Your task to perform on an android device: Clear the cart on walmart.com. Search for "bose soundlink mini" on walmart.com, select the first entry, add it to the cart, then select checkout. Image 0: 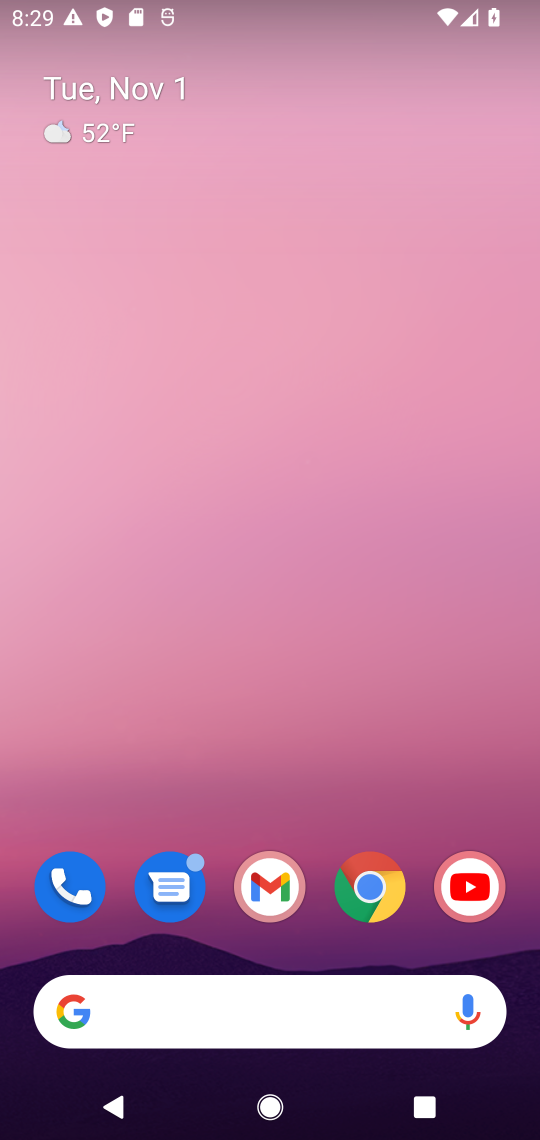
Step 0: drag from (200, 625) to (208, 255)
Your task to perform on an android device: Clear the cart on walmart.com. Search for "bose soundlink mini" on walmart.com, select the first entry, add it to the cart, then select checkout. Image 1: 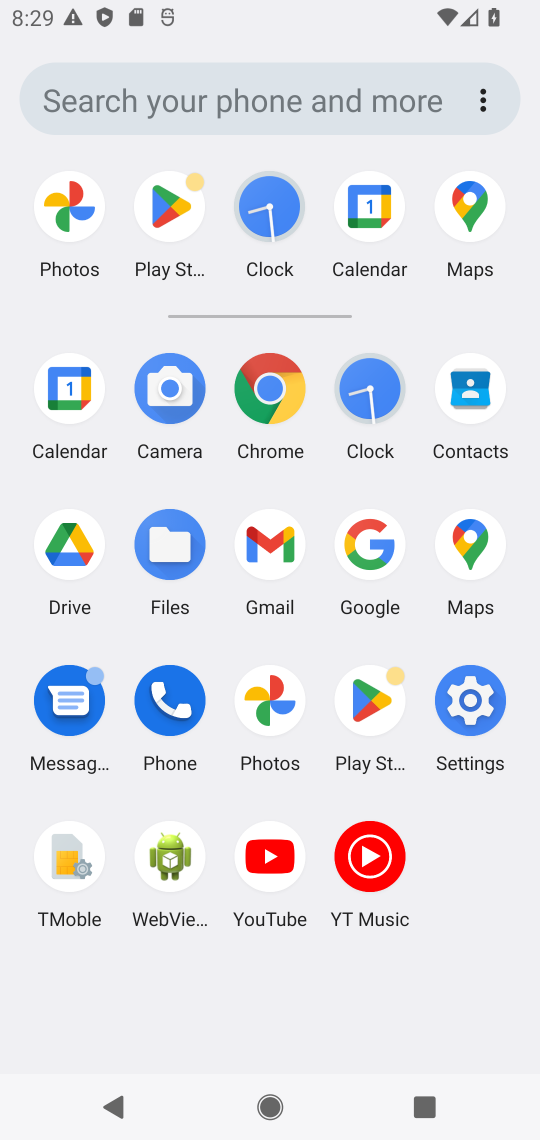
Step 1: click (368, 532)
Your task to perform on an android device: Clear the cart on walmart.com. Search for "bose soundlink mini" on walmart.com, select the first entry, add it to the cart, then select checkout. Image 2: 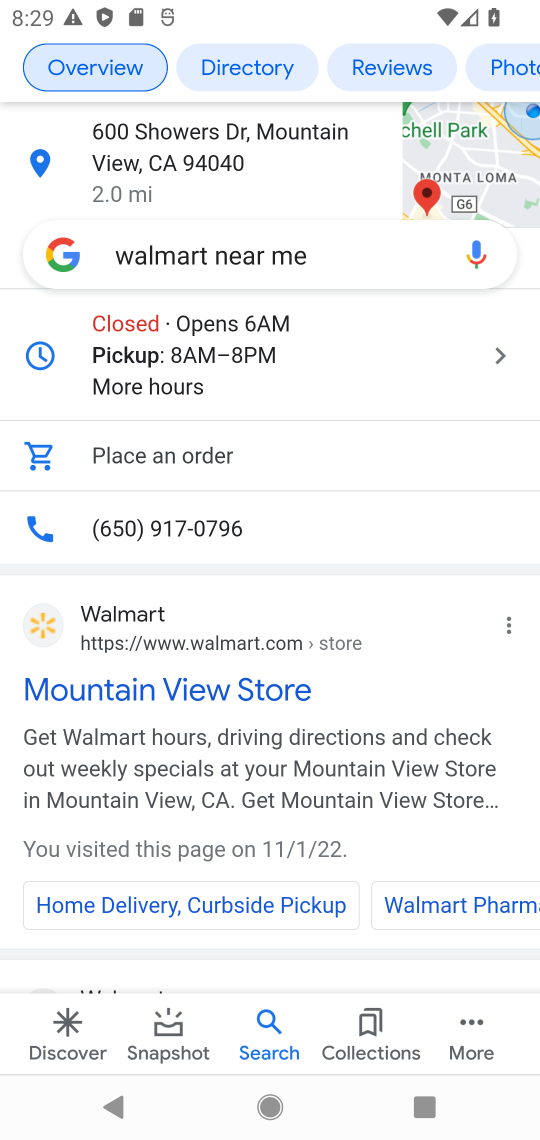
Step 2: click (246, 256)
Your task to perform on an android device: Clear the cart on walmart.com. Search for "bose soundlink mini" on walmart.com, select the first entry, add it to the cart, then select checkout. Image 3: 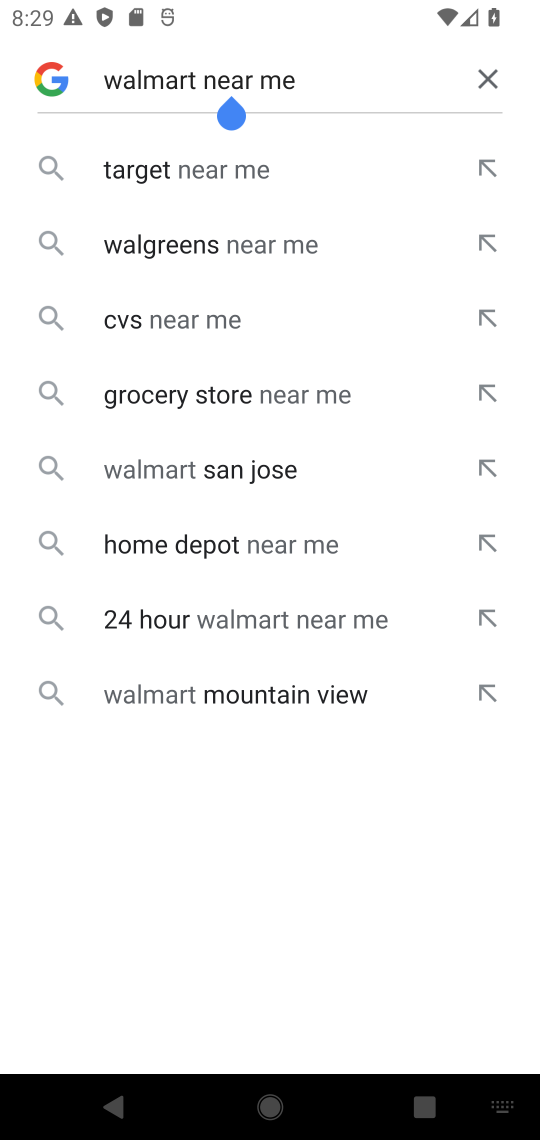
Step 3: click (479, 75)
Your task to perform on an android device: Clear the cart on walmart.com. Search for "bose soundlink mini" on walmart.com, select the first entry, add it to the cart, then select checkout. Image 4: 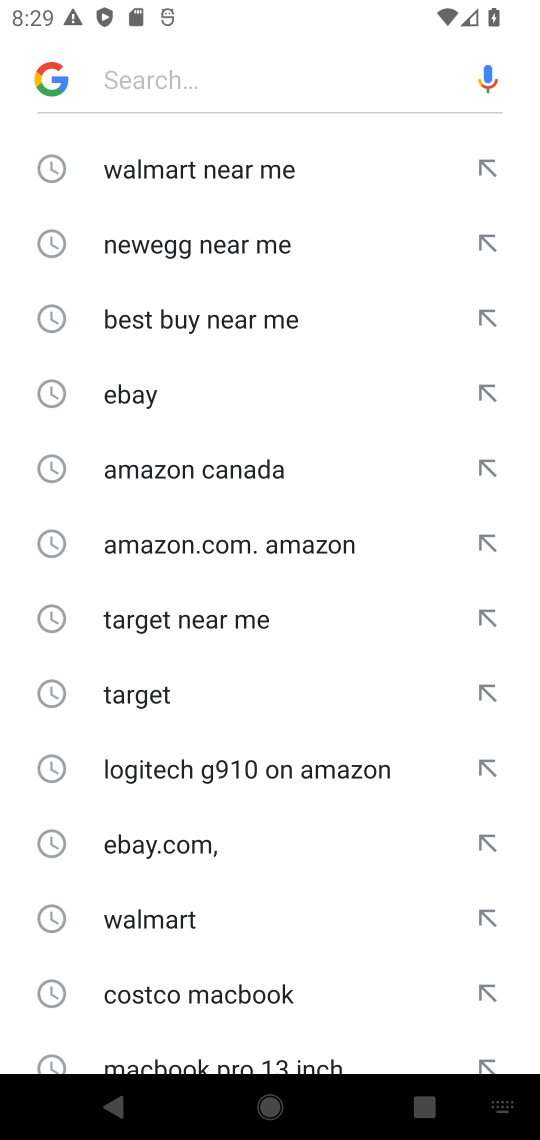
Step 4: click (221, 172)
Your task to perform on an android device: Clear the cart on walmart.com. Search for "bose soundlink mini" on walmart.com, select the first entry, add it to the cart, then select checkout. Image 5: 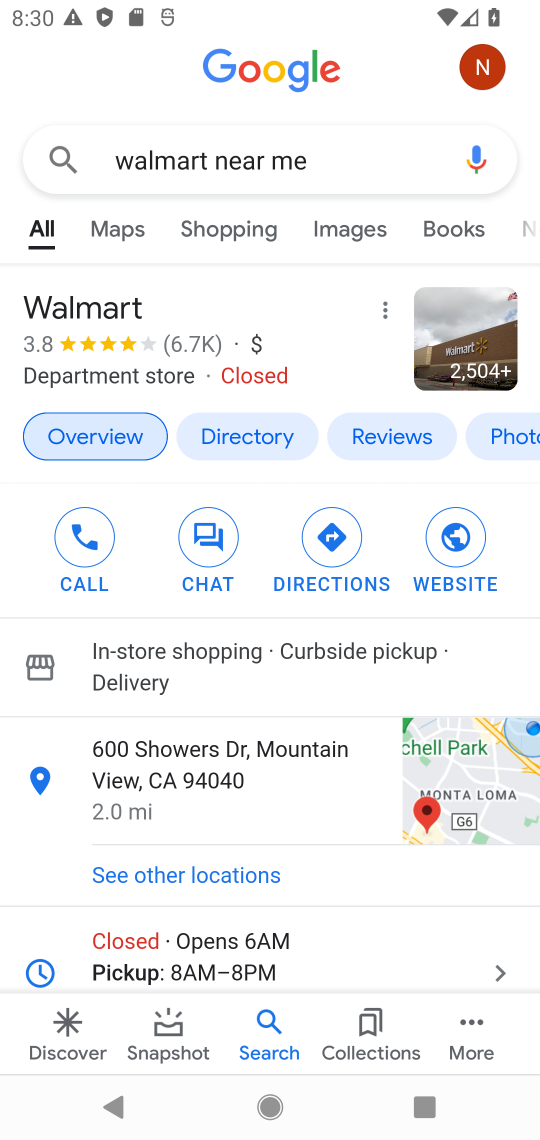
Step 5: drag from (81, 783) to (228, 198)
Your task to perform on an android device: Clear the cart on walmart.com. Search for "bose soundlink mini" on walmart.com, select the first entry, add it to the cart, then select checkout. Image 6: 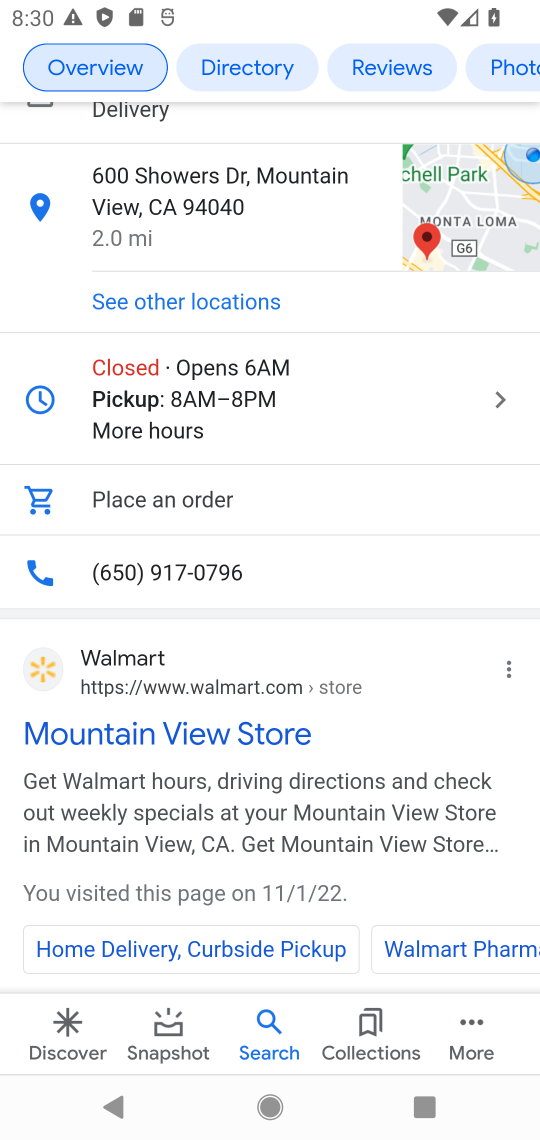
Step 6: click (43, 671)
Your task to perform on an android device: Clear the cart on walmart.com. Search for "bose soundlink mini" on walmart.com, select the first entry, add it to the cart, then select checkout. Image 7: 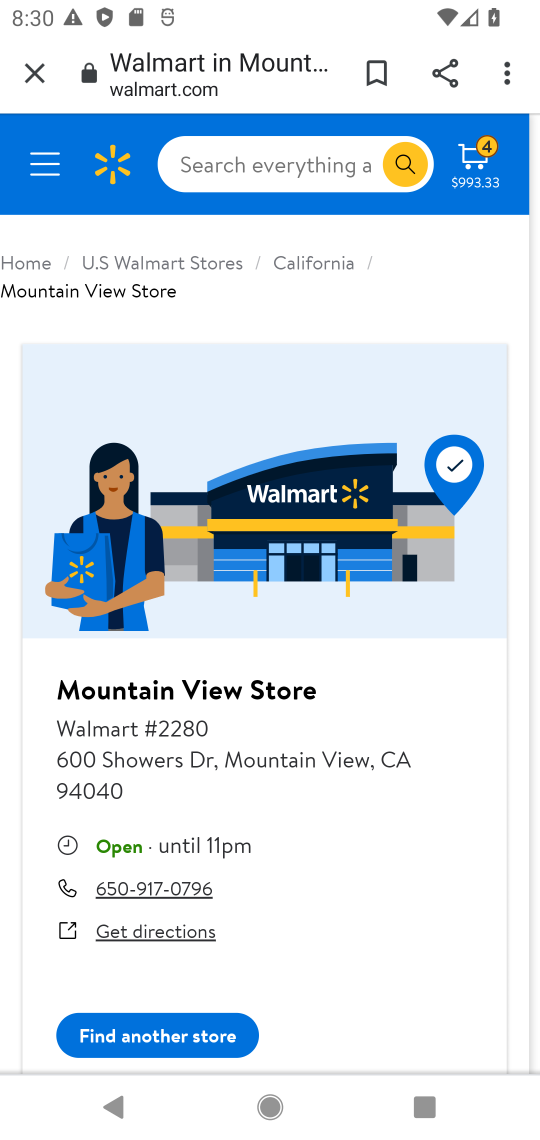
Step 7: click (265, 157)
Your task to perform on an android device: Clear the cart on walmart.com. Search for "bose soundlink mini" on walmart.com, select the first entry, add it to the cart, then select checkout. Image 8: 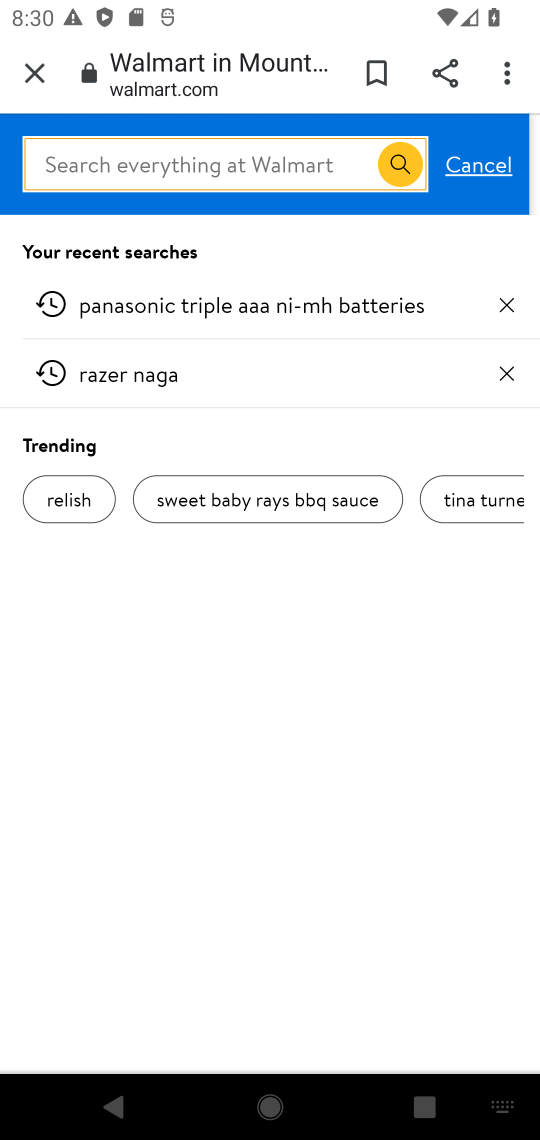
Step 8: type "bose soundlink mini "
Your task to perform on an android device: Clear the cart on walmart.com. Search for "bose soundlink mini" on walmart.com, select the first entry, add it to the cart, then select checkout. Image 9: 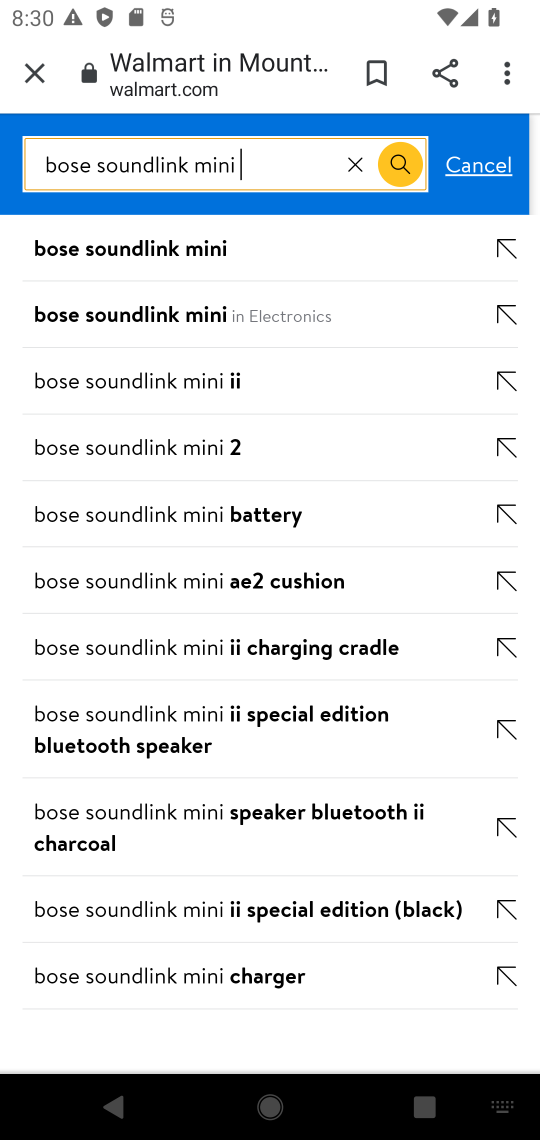
Step 9: click (114, 233)
Your task to perform on an android device: Clear the cart on walmart.com. Search for "bose soundlink mini" on walmart.com, select the first entry, add it to the cart, then select checkout. Image 10: 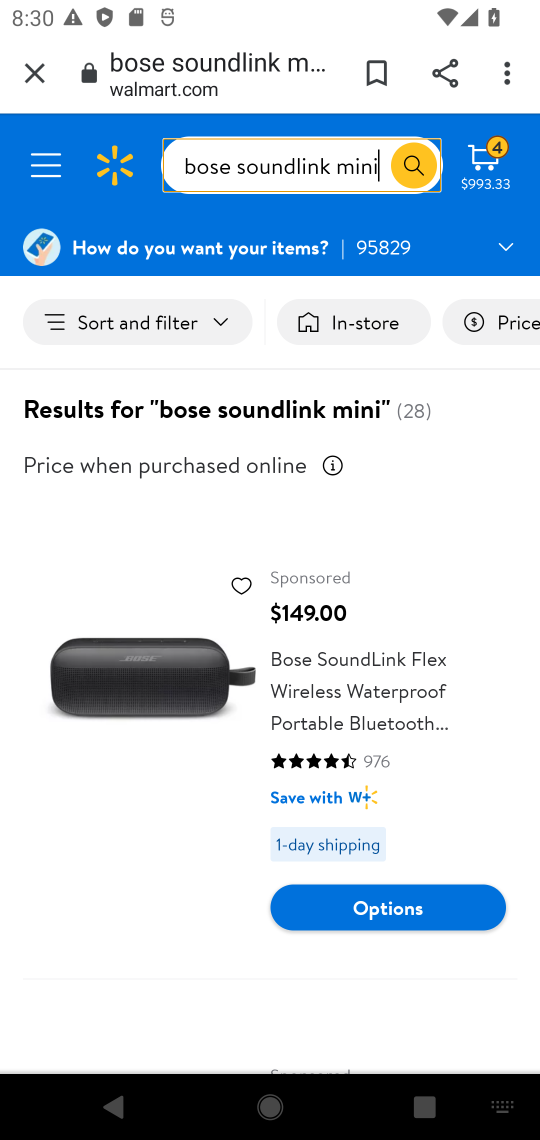
Step 10: click (341, 661)
Your task to perform on an android device: Clear the cart on walmart.com. Search for "bose soundlink mini" on walmart.com, select the first entry, add it to the cart, then select checkout. Image 11: 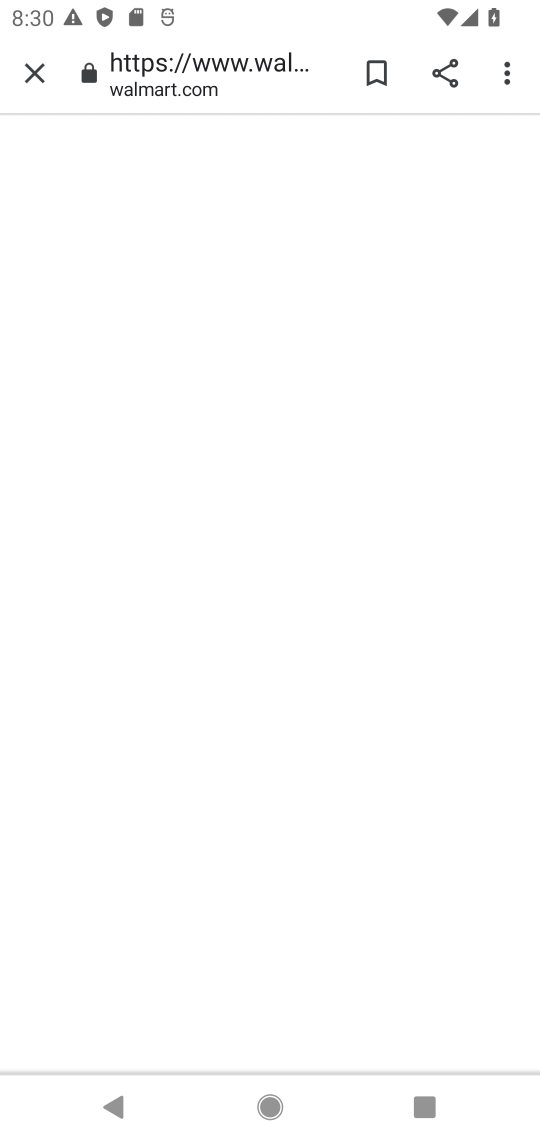
Step 11: drag from (394, 945) to (403, 715)
Your task to perform on an android device: Clear the cart on walmart.com. Search for "bose soundlink mini" on walmart.com, select the first entry, add it to the cart, then select checkout. Image 12: 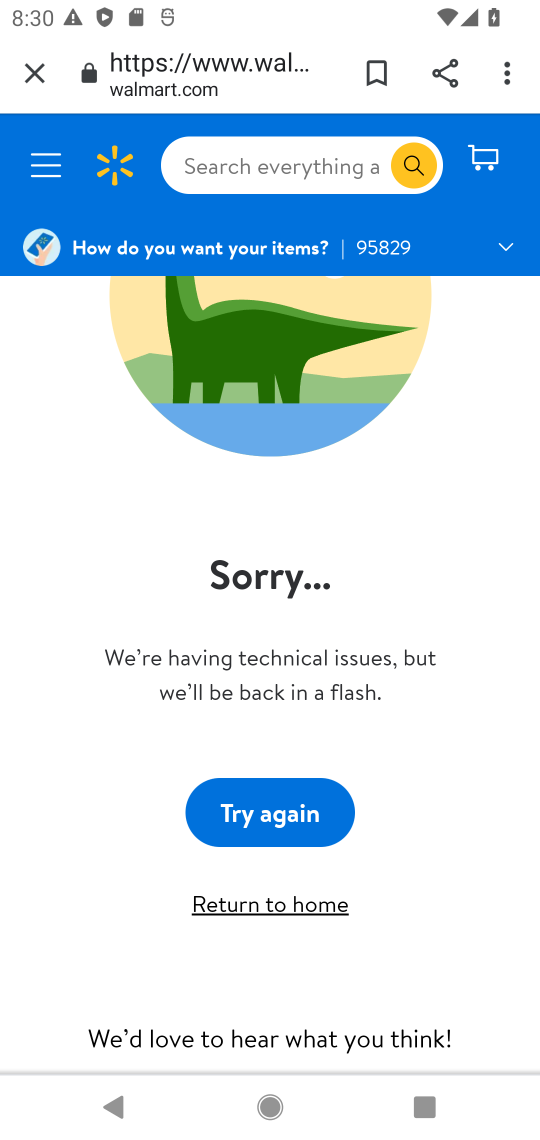
Step 12: click (281, 901)
Your task to perform on an android device: Clear the cart on walmart.com. Search for "bose soundlink mini" on walmart.com, select the first entry, add it to the cart, then select checkout. Image 13: 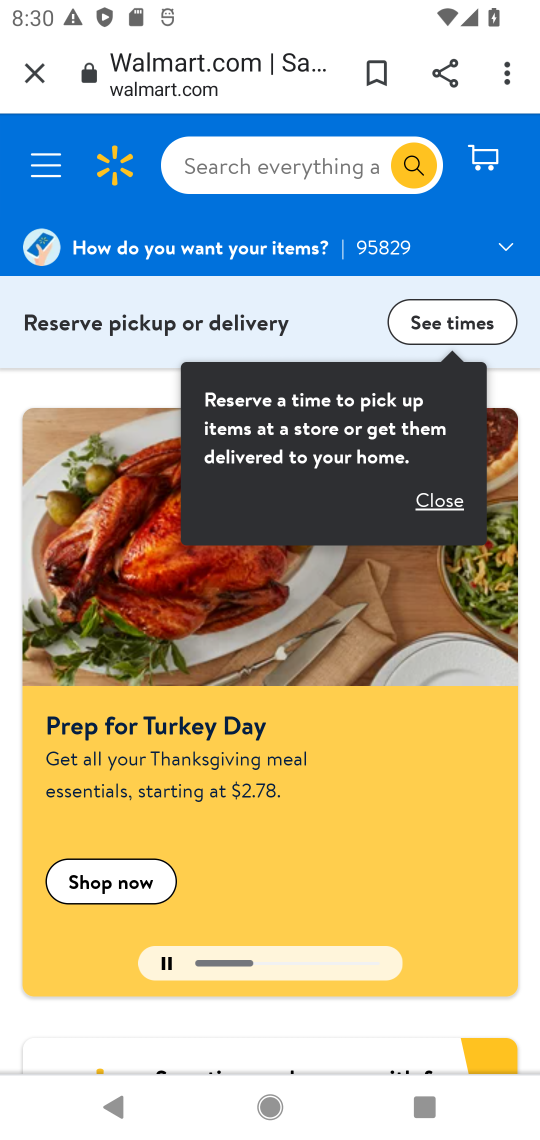
Step 13: click (241, 147)
Your task to perform on an android device: Clear the cart on walmart.com. Search for "bose soundlink mini" on walmart.com, select the first entry, add it to the cart, then select checkout. Image 14: 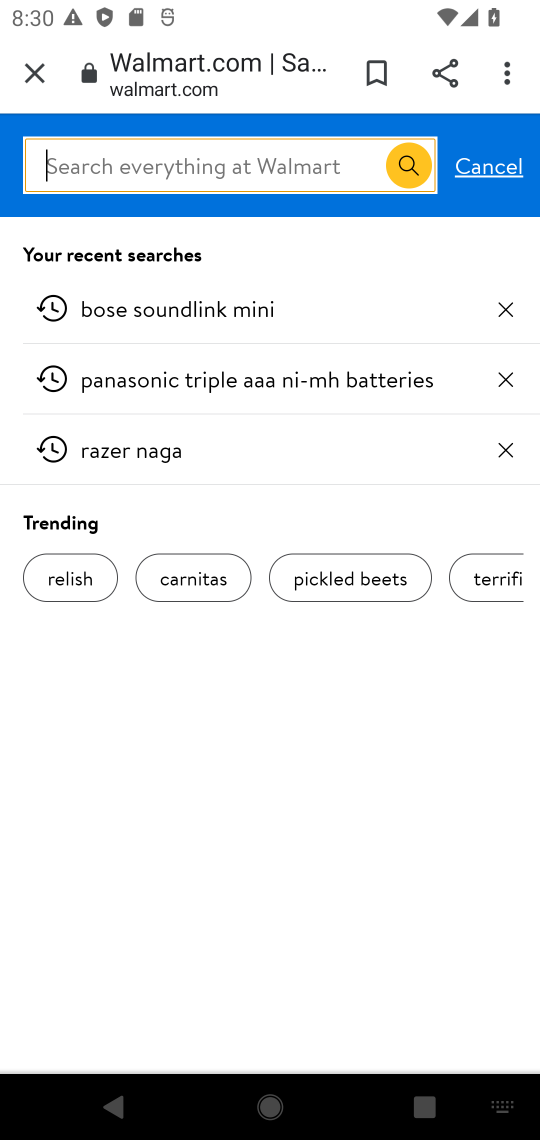
Step 14: click (108, 304)
Your task to perform on an android device: Clear the cart on walmart.com. Search for "bose soundlink mini" on walmart.com, select the first entry, add it to the cart, then select checkout. Image 15: 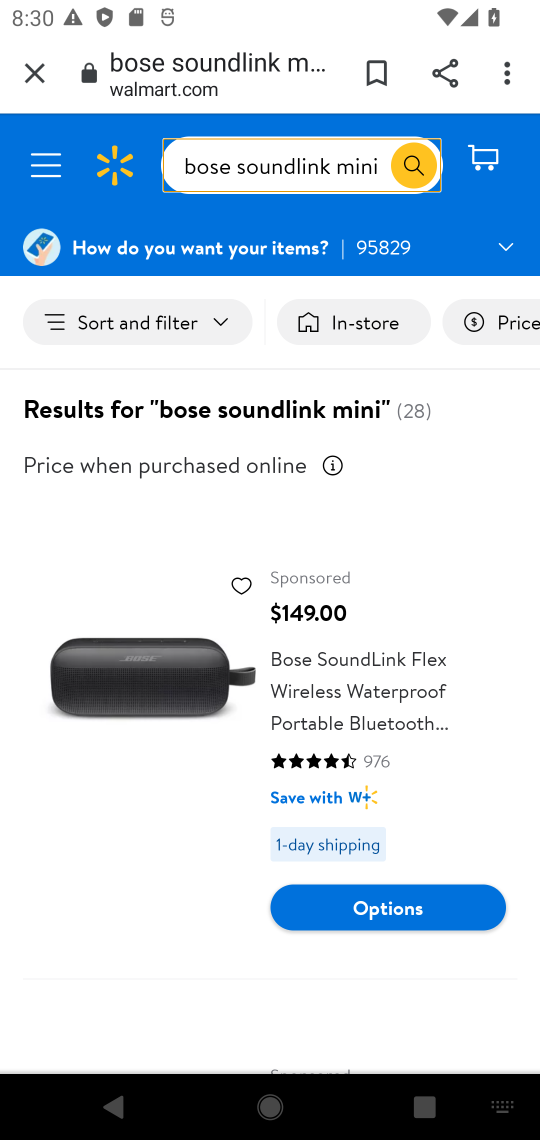
Step 15: click (391, 894)
Your task to perform on an android device: Clear the cart on walmart.com. Search for "bose soundlink mini" on walmart.com, select the first entry, add it to the cart, then select checkout. Image 16: 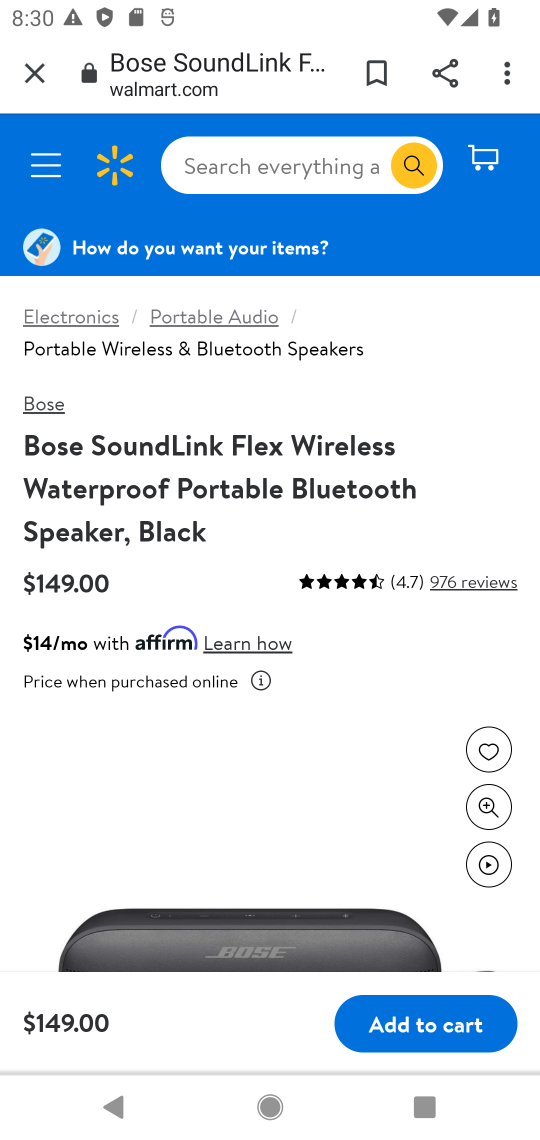
Step 16: click (407, 1017)
Your task to perform on an android device: Clear the cart on walmart.com. Search for "bose soundlink mini" on walmart.com, select the first entry, add it to the cart, then select checkout. Image 17: 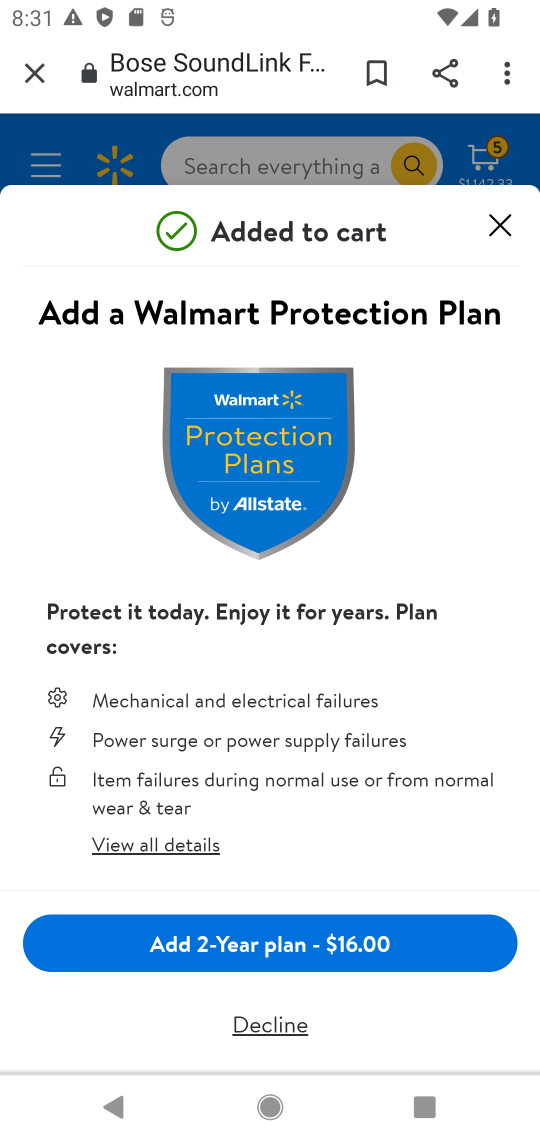
Step 17: click (512, 211)
Your task to perform on an android device: Clear the cart on walmart.com. Search for "bose soundlink mini" on walmart.com, select the first entry, add it to the cart, then select checkout. Image 18: 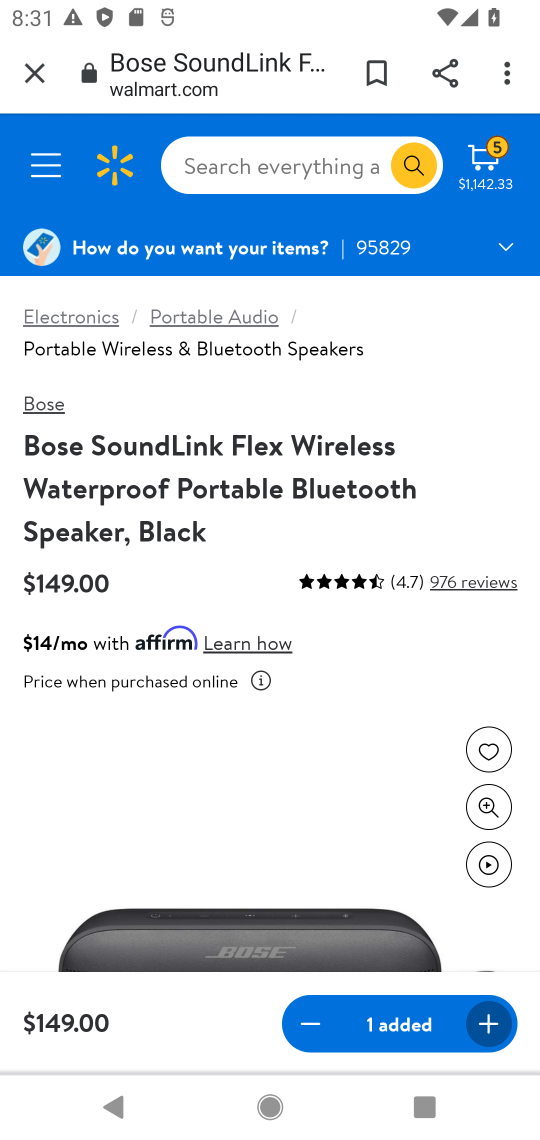
Step 18: task complete